Your task to perform on an android device: star an email in the gmail app Image 0: 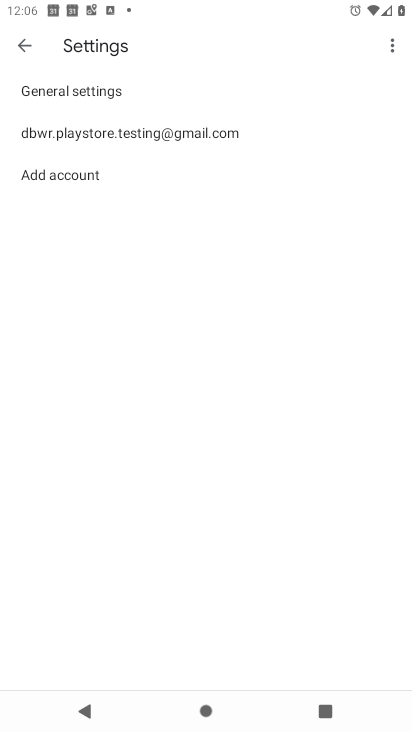
Step 0: click (31, 57)
Your task to perform on an android device: star an email in the gmail app Image 1: 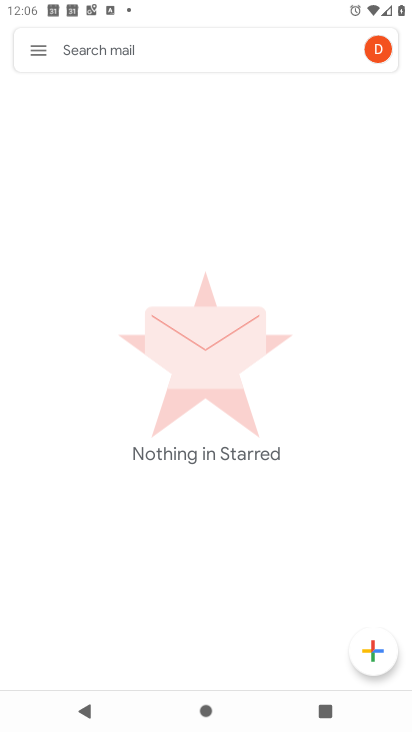
Step 1: click (31, 57)
Your task to perform on an android device: star an email in the gmail app Image 2: 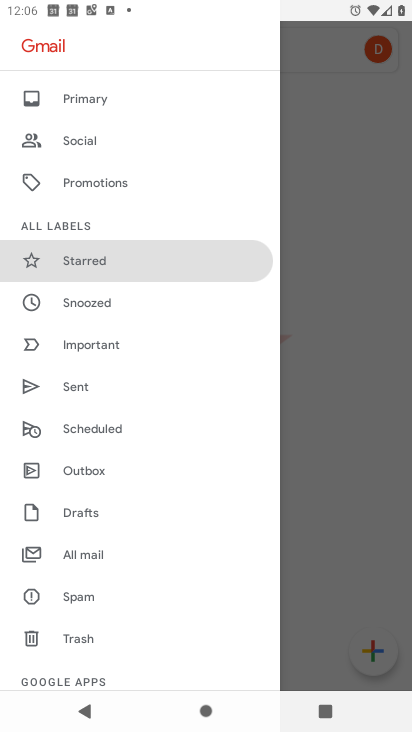
Step 2: drag from (148, 440) to (133, 525)
Your task to perform on an android device: star an email in the gmail app Image 3: 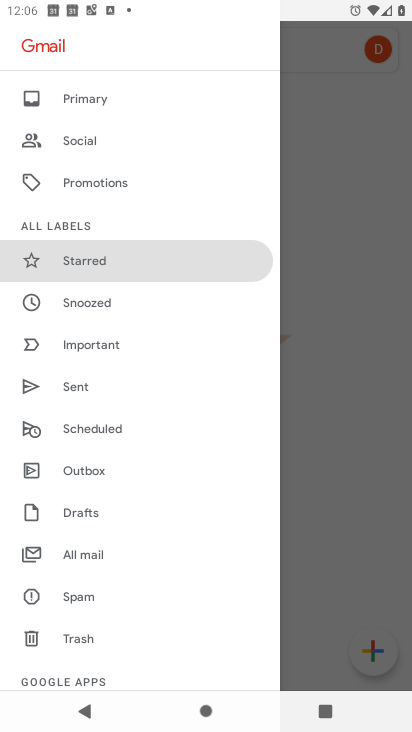
Step 3: drag from (142, 544) to (156, 136)
Your task to perform on an android device: star an email in the gmail app Image 4: 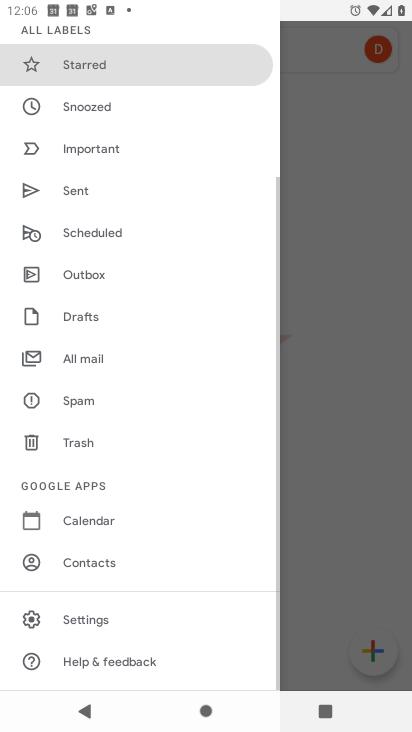
Step 4: click (113, 369)
Your task to perform on an android device: star an email in the gmail app Image 5: 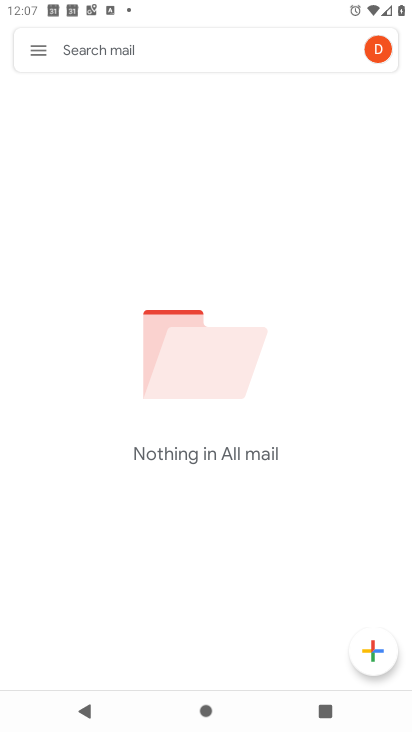
Step 5: task complete